Your task to perform on an android device: Show me productivity apps on the Play Store Image 0: 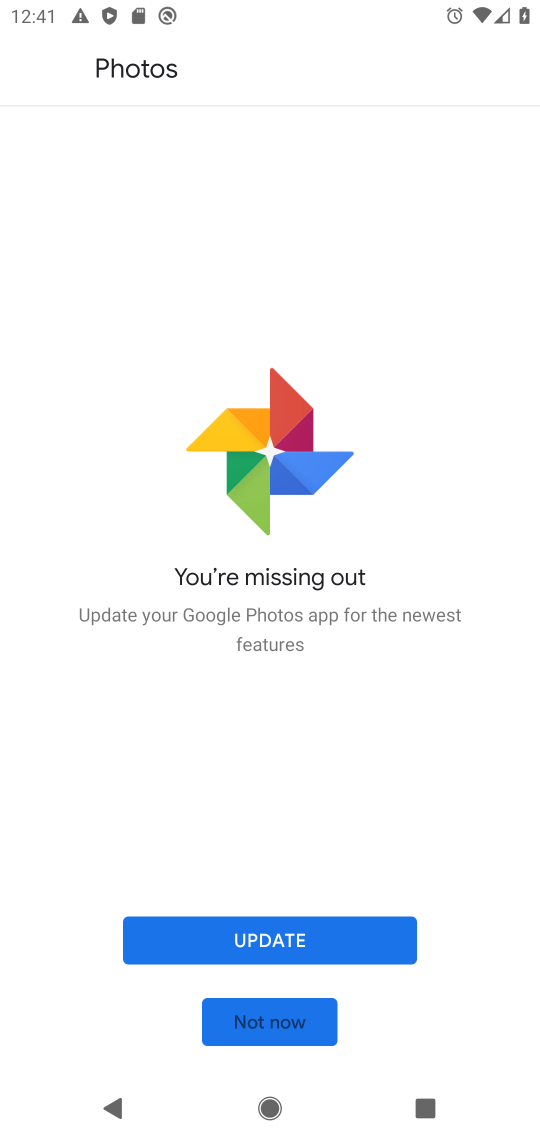
Step 0: press home button
Your task to perform on an android device: Show me productivity apps on the Play Store Image 1: 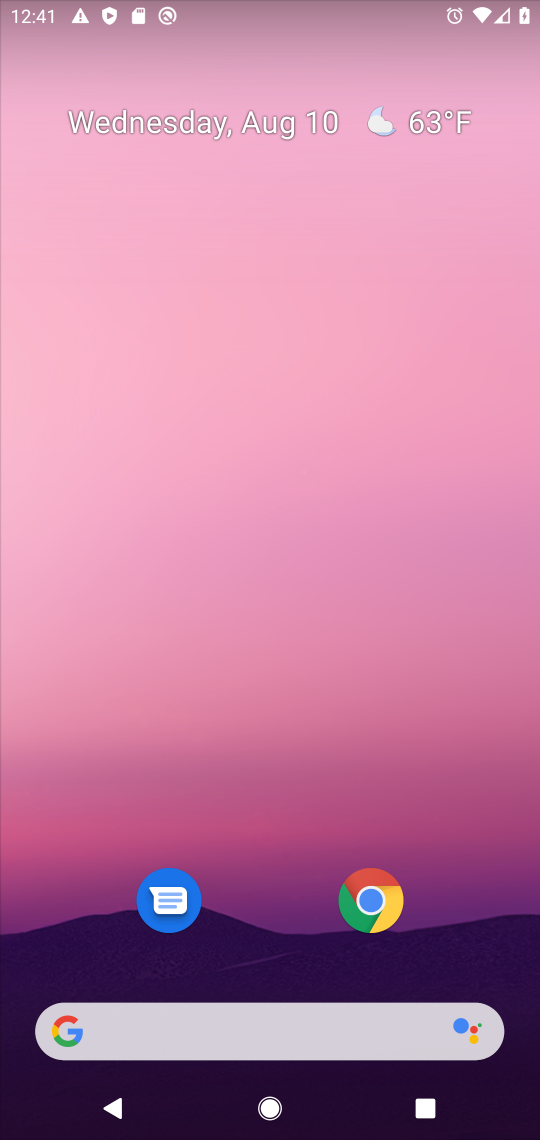
Step 1: drag from (283, 914) to (304, 0)
Your task to perform on an android device: Show me productivity apps on the Play Store Image 2: 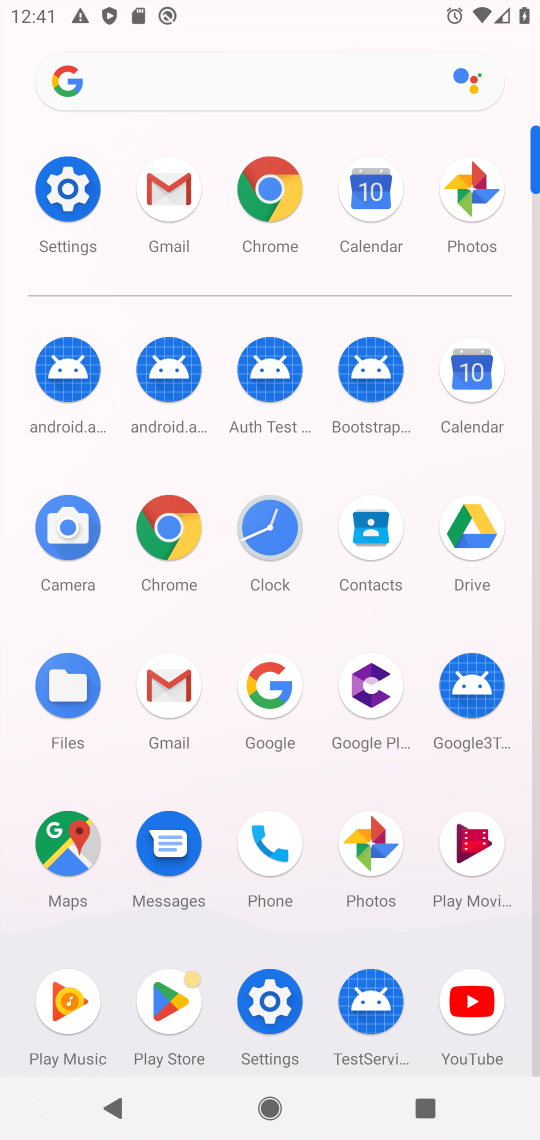
Step 2: click (174, 985)
Your task to perform on an android device: Show me productivity apps on the Play Store Image 3: 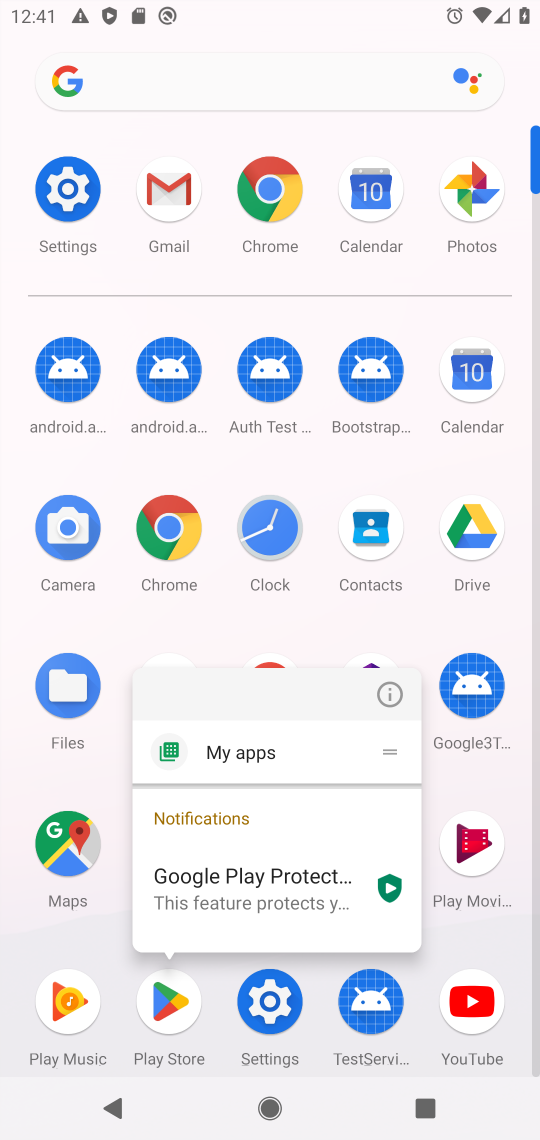
Step 3: click (174, 999)
Your task to perform on an android device: Show me productivity apps on the Play Store Image 4: 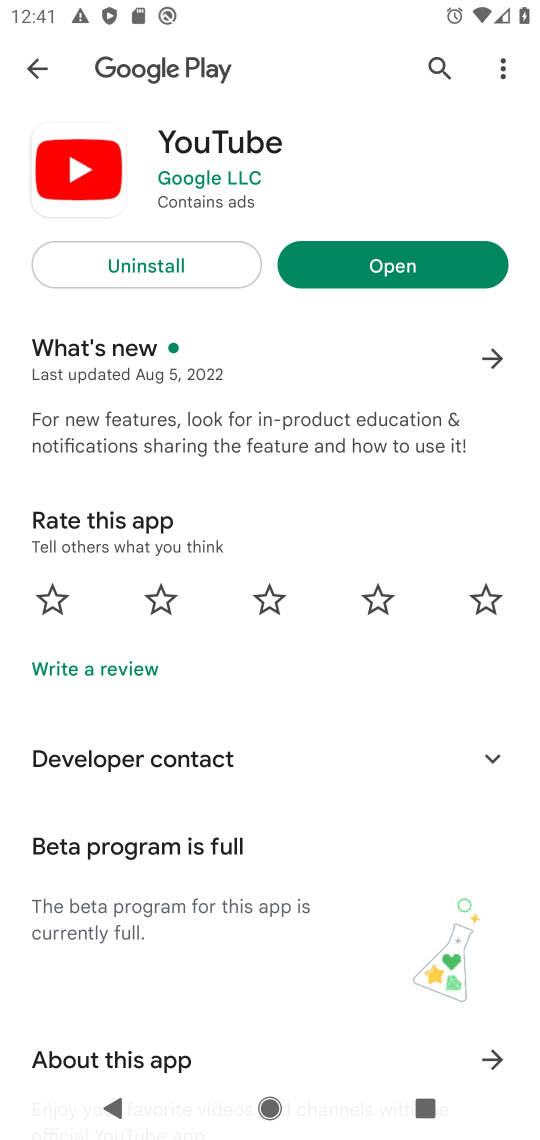
Step 4: click (40, 68)
Your task to perform on an android device: Show me productivity apps on the Play Store Image 5: 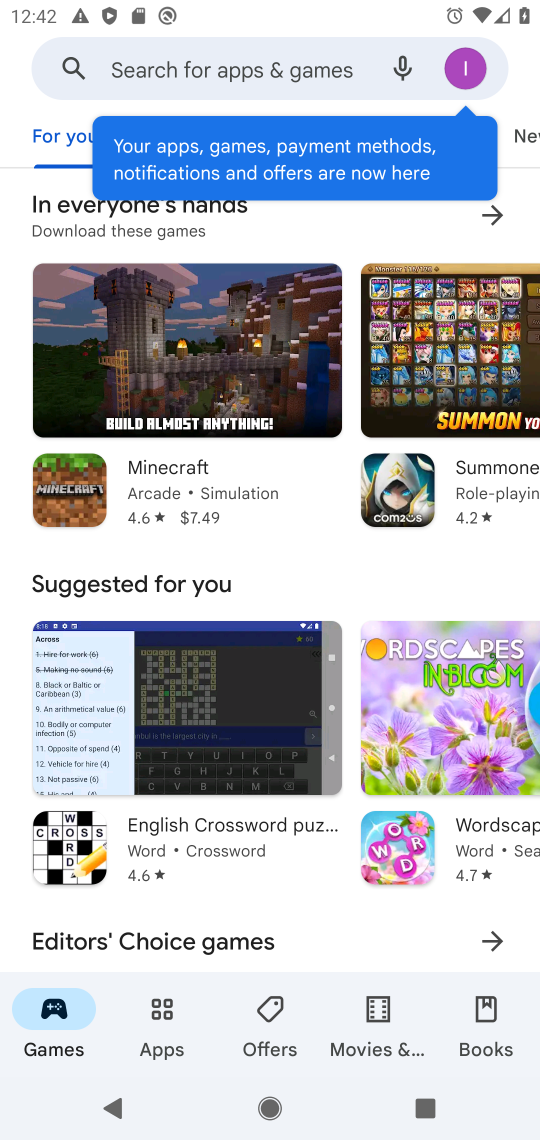
Step 5: click (157, 1002)
Your task to perform on an android device: Show me productivity apps on the Play Store Image 6: 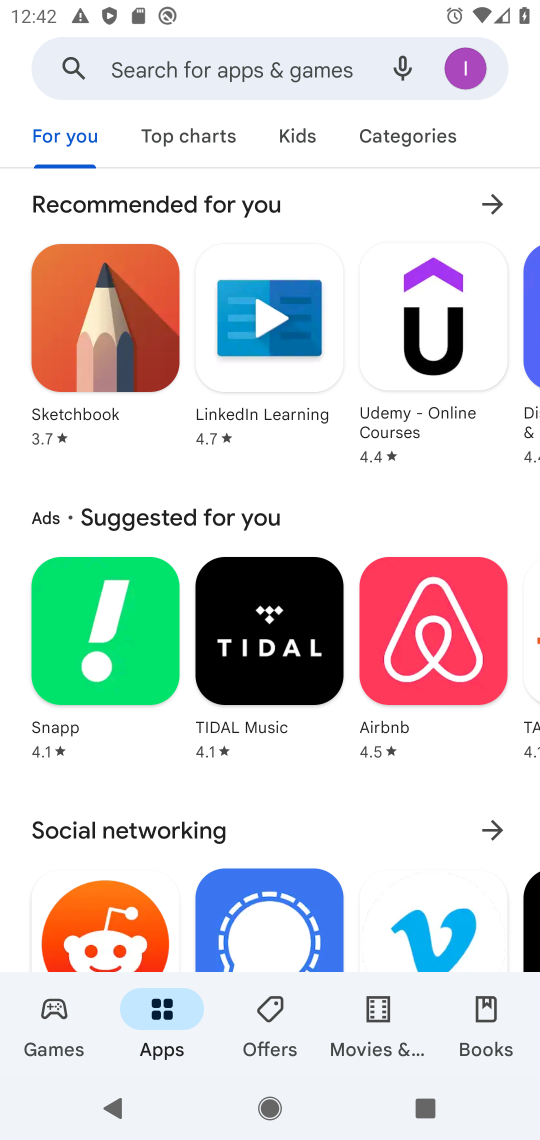
Step 6: click (417, 127)
Your task to perform on an android device: Show me productivity apps on the Play Store Image 7: 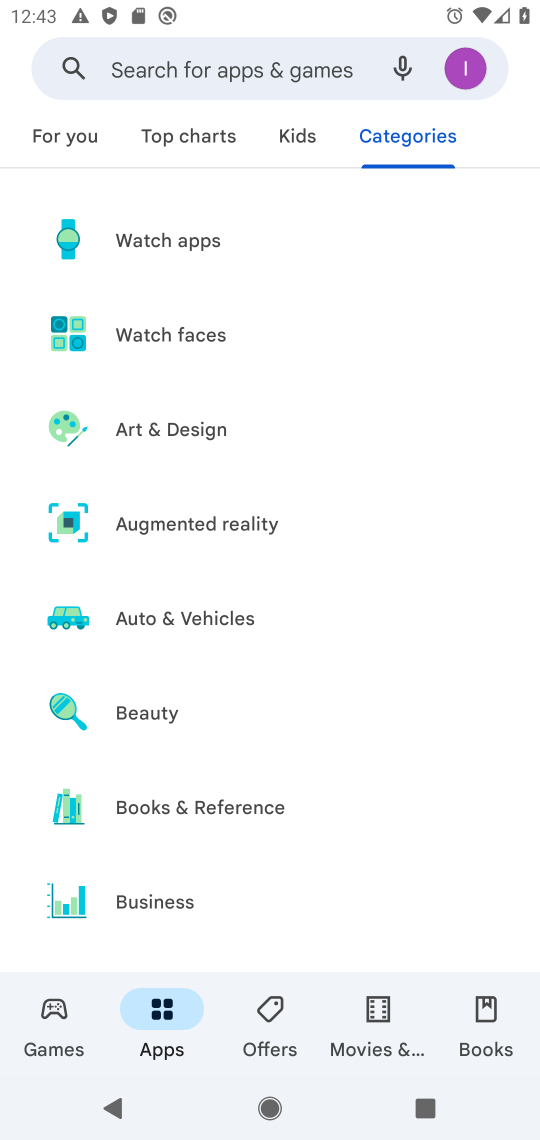
Step 7: drag from (305, 822) to (267, 120)
Your task to perform on an android device: Show me productivity apps on the Play Store Image 8: 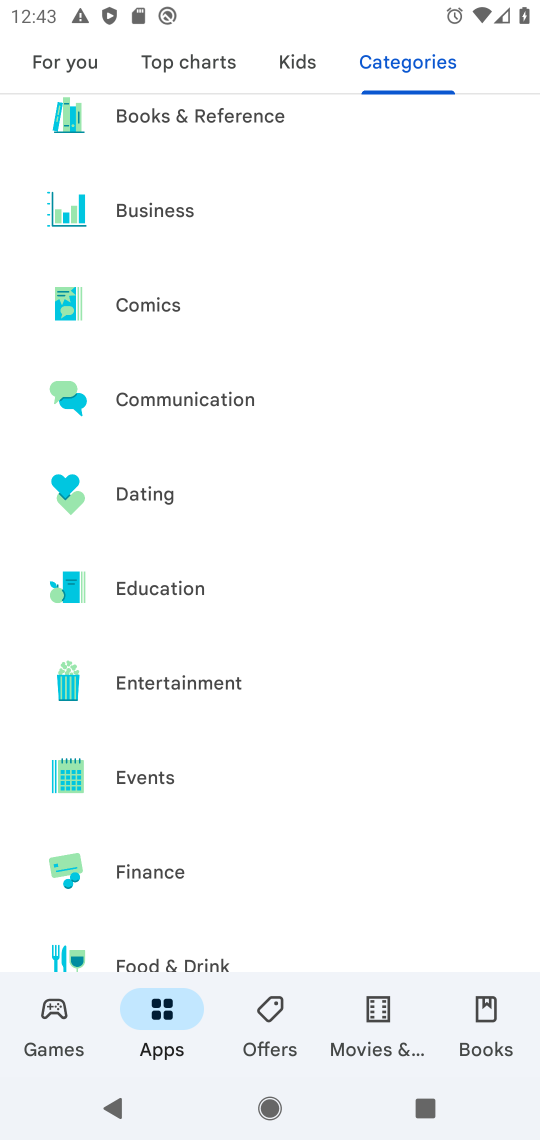
Step 8: drag from (281, 780) to (280, 141)
Your task to perform on an android device: Show me productivity apps on the Play Store Image 9: 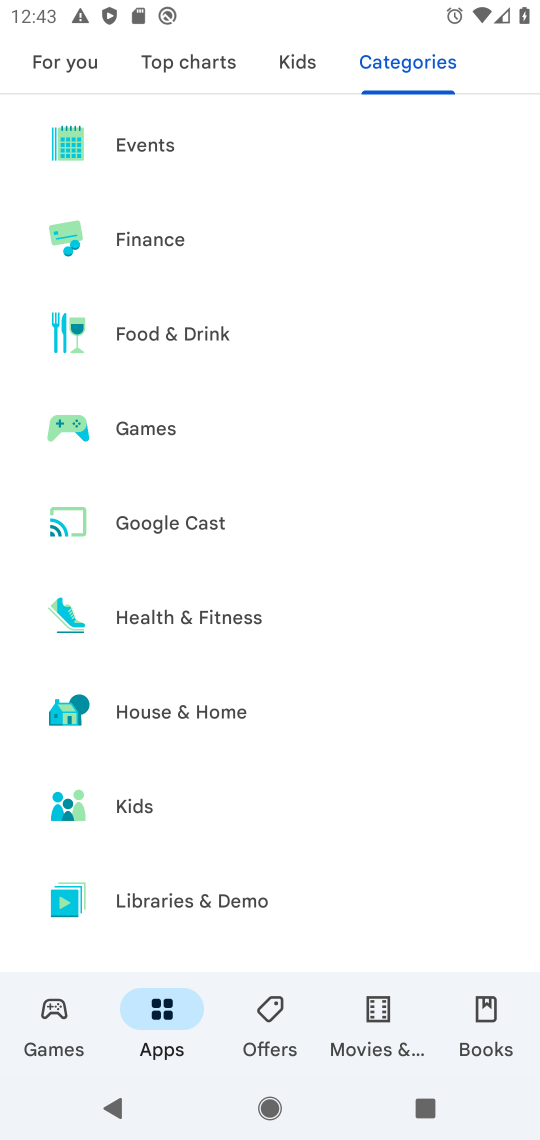
Step 9: drag from (292, 821) to (309, 9)
Your task to perform on an android device: Show me productivity apps on the Play Store Image 10: 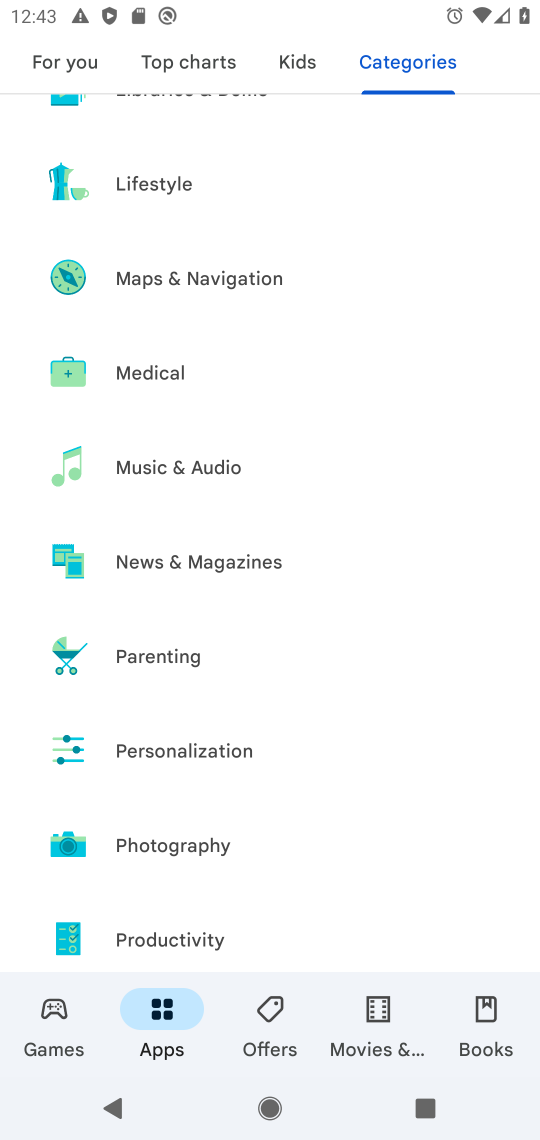
Step 10: drag from (303, 780) to (282, 280)
Your task to perform on an android device: Show me productivity apps on the Play Store Image 11: 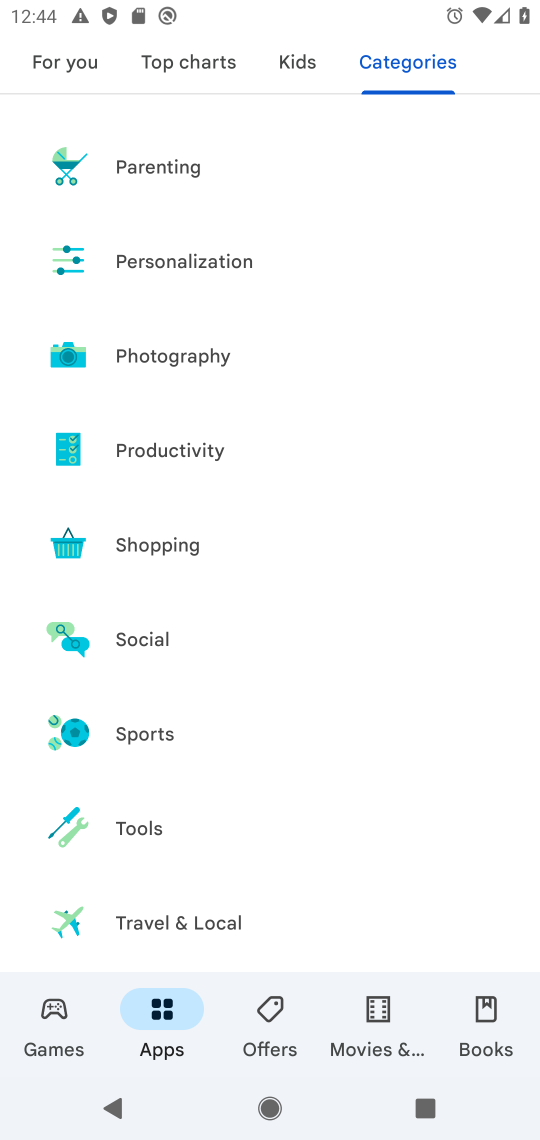
Step 11: click (221, 434)
Your task to perform on an android device: Show me productivity apps on the Play Store Image 12: 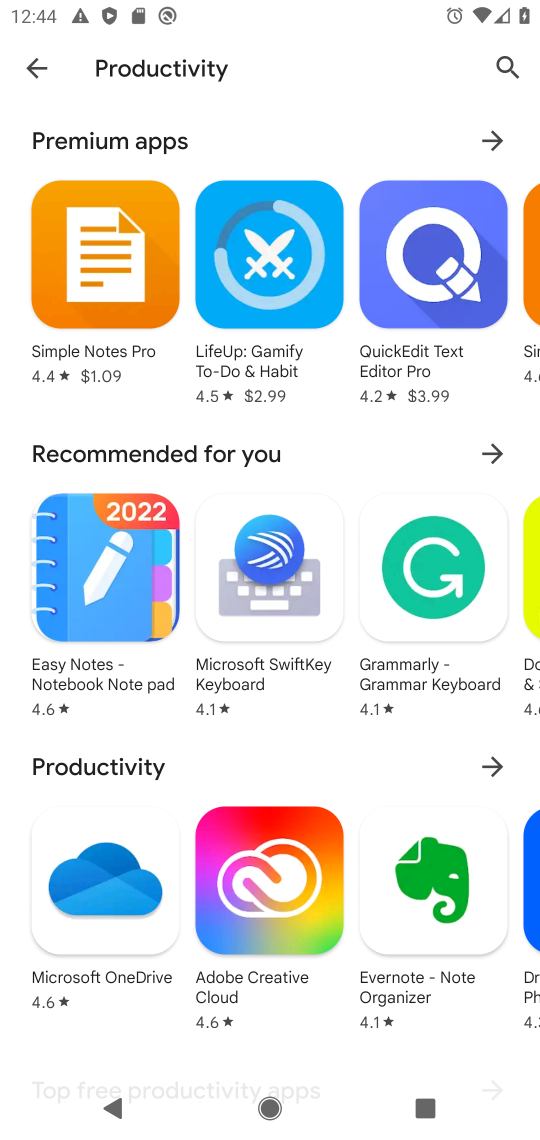
Step 12: click (501, 751)
Your task to perform on an android device: Show me productivity apps on the Play Store Image 13: 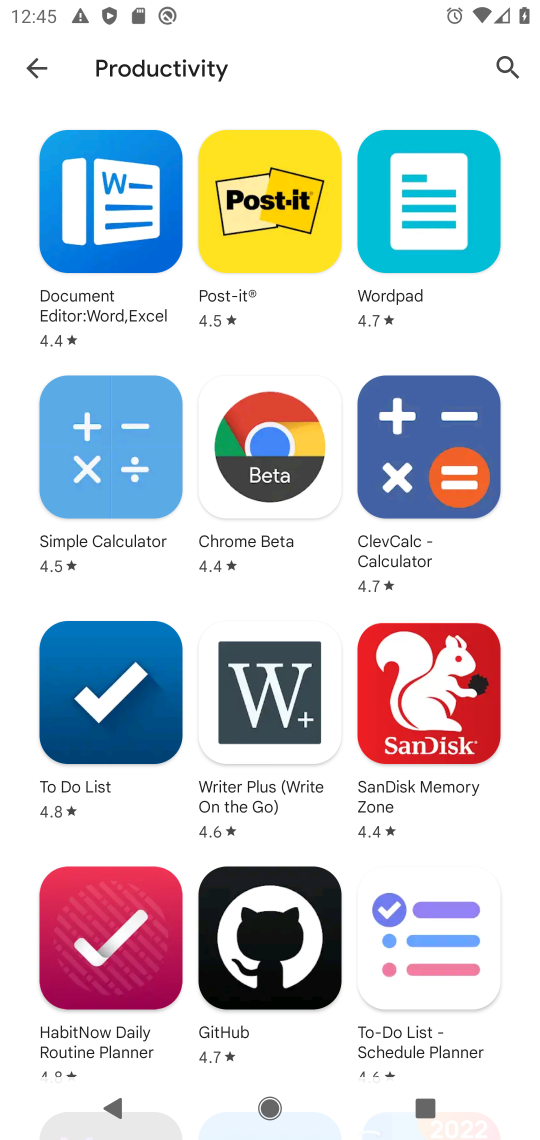
Step 13: task complete